Your task to perform on an android device: Open calendar and show me the first week of next month Image 0: 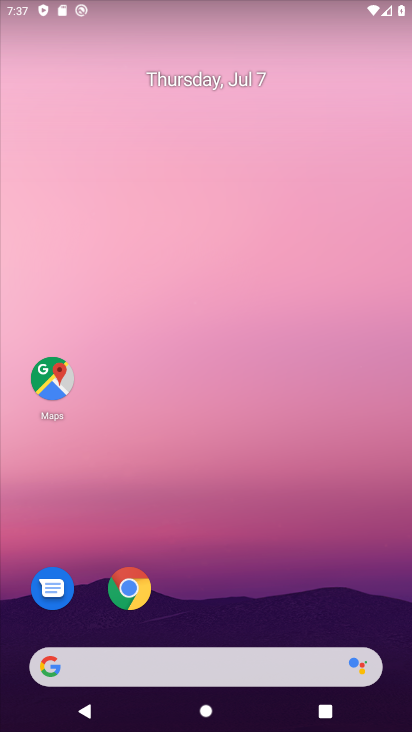
Step 0: drag from (213, 563) to (157, 36)
Your task to perform on an android device: Open calendar and show me the first week of next month Image 1: 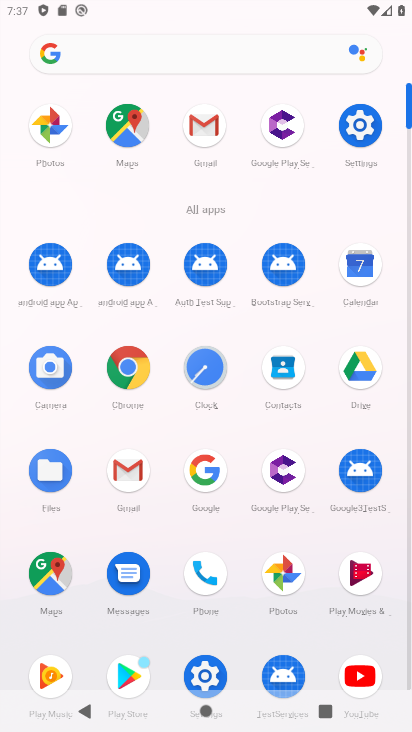
Step 1: click (353, 269)
Your task to perform on an android device: Open calendar and show me the first week of next month Image 2: 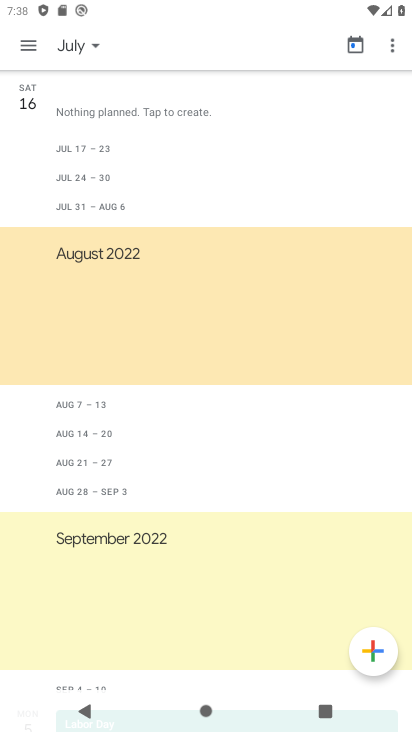
Step 2: drag from (212, 585) to (193, 129)
Your task to perform on an android device: Open calendar and show me the first week of next month Image 3: 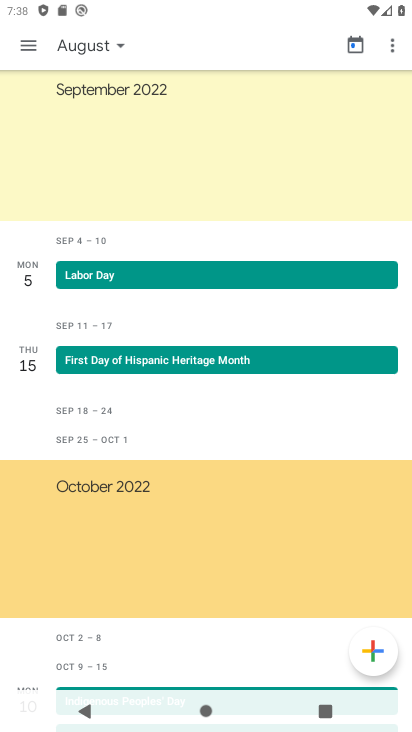
Step 3: click (82, 47)
Your task to perform on an android device: Open calendar and show me the first week of next month Image 4: 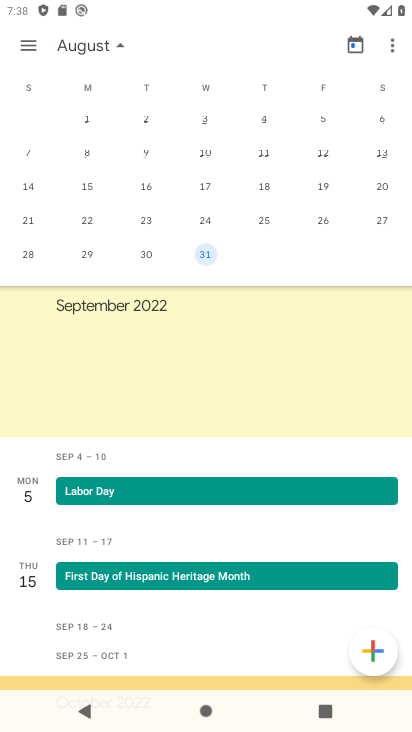
Step 4: drag from (375, 217) to (396, 128)
Your task to perform on an android device: Open calendar and show me the first week of next month Image 5: 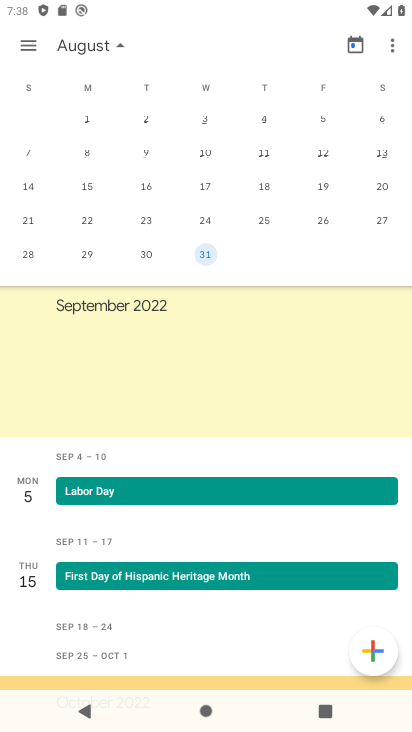
Step 5: click (378, 113)
Your task to perform on an android device: Open calendar and show me the first week of next month Image 6: 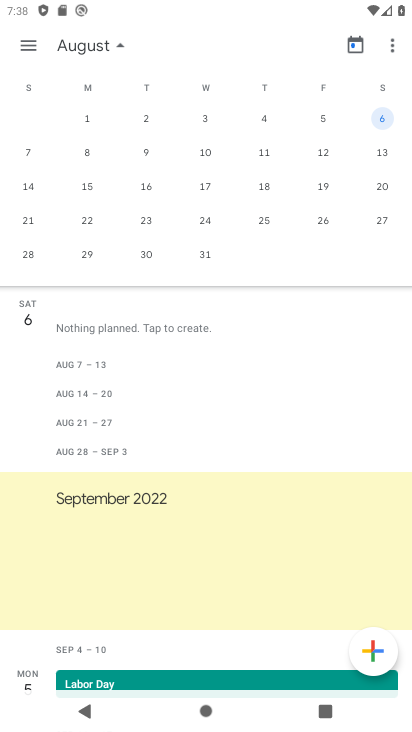
Step 6: task complete